Your task to perform on an android device: Open sound settings Image 0: 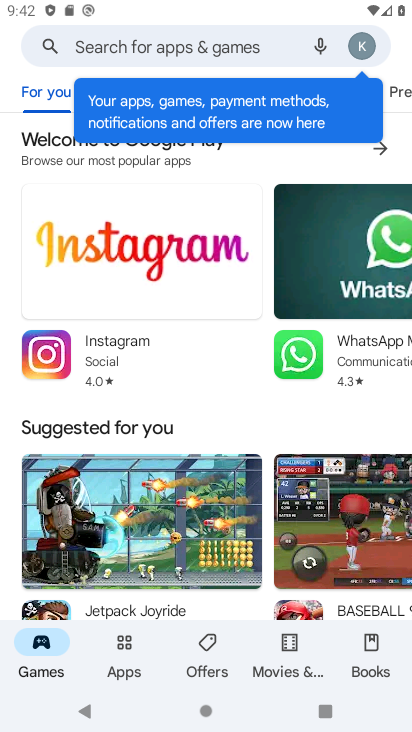
Step 0: press home button
Your task to perform on an android device: Open sound settings Image 1: 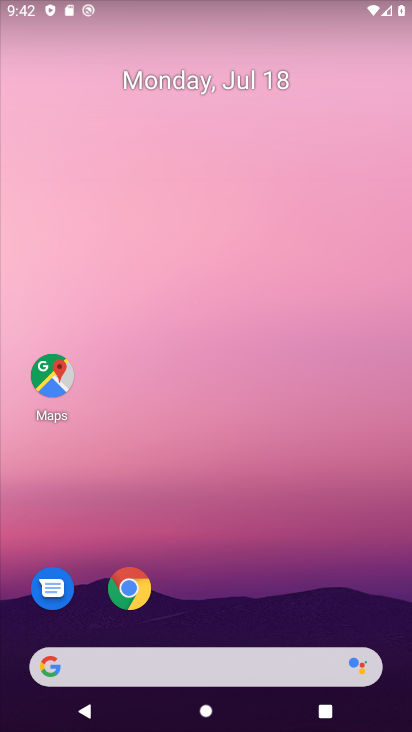
Step 1: drag from (236, 703) to (231, 215)
Your task to perform on an android device: Open sound settings Image 2: 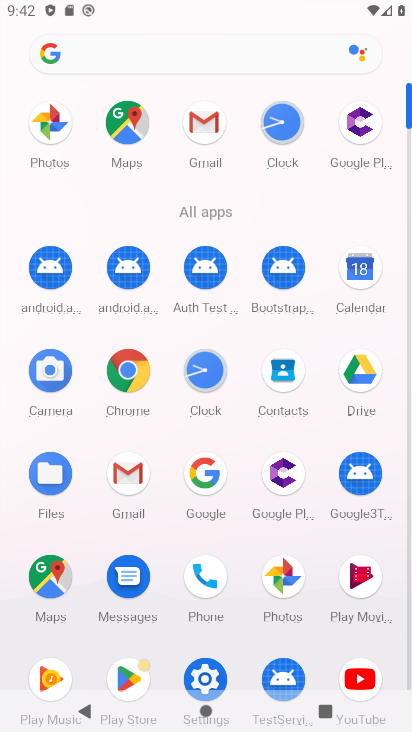
Step 2: click (204, 675)
Your task to perform on an android device: Open sound settings Image 3: 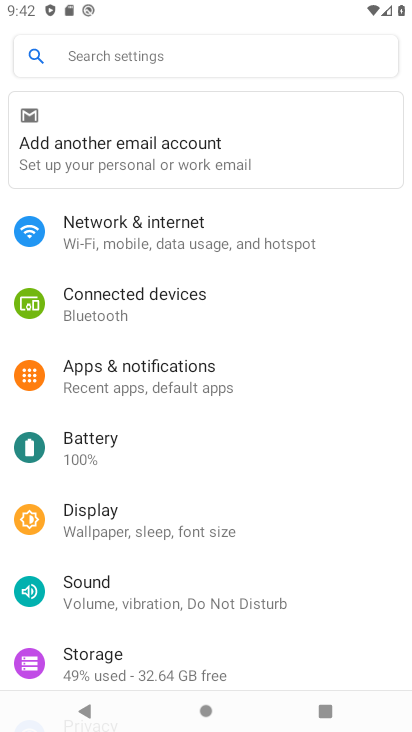
Step 3: click (90, 590)
Your task to perform on an android device: Open sound settings Image 4: 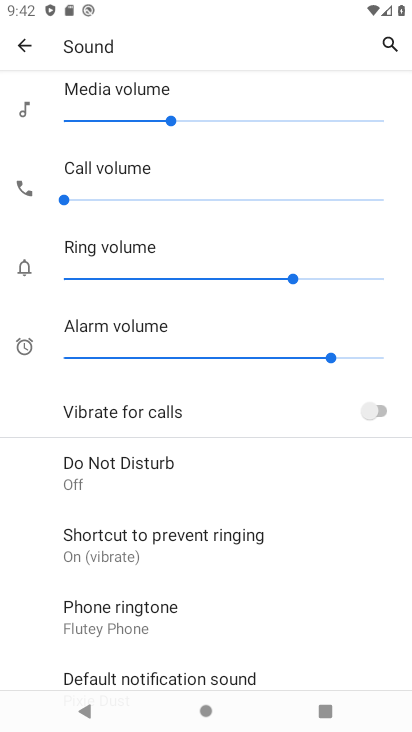
Step 4: task complete